Your task to perform on an android device: find which apps use the phone's location Image 0: 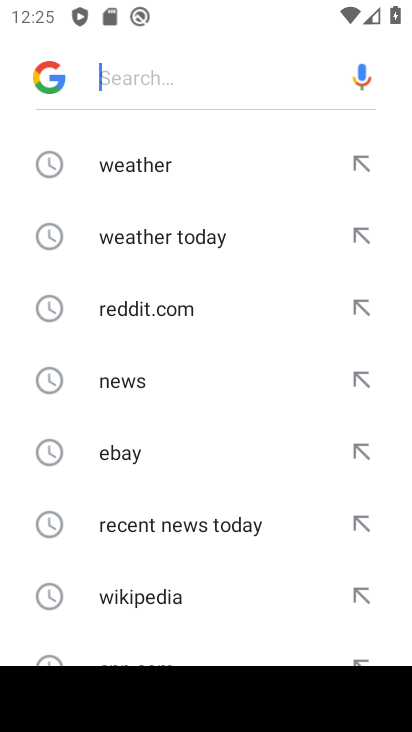
Step 0: press back button
Your task to perform on an android device: find which apps use the phone's location Image 1: 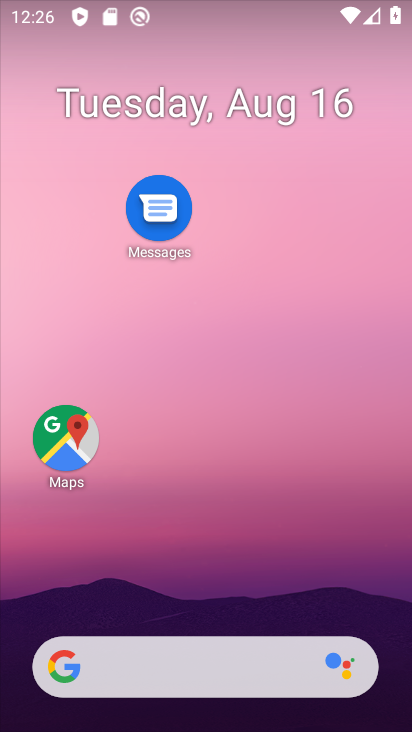
Step 1: drag from (188, 613) to (309, 23)
Your task to perform on an android device: find which apps use the phone's location Image 2: 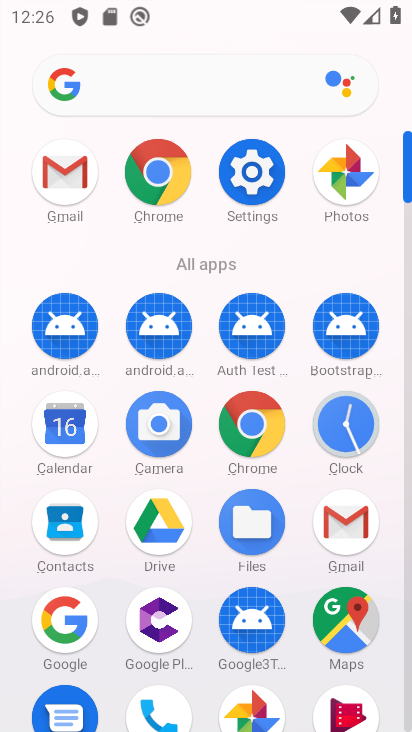
Step 2: click (241, 177)
Your task to perform on an android device: find which apps use the phone's location Image 3: 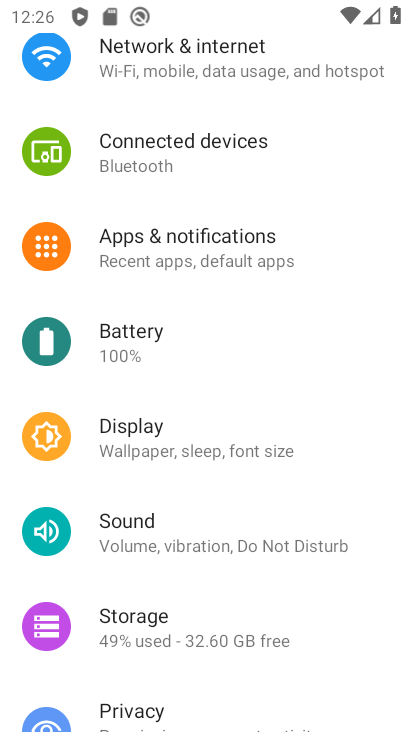
Step 3: drag from (271, 642) to (229, 125)
Your task to perform on an android device: find which apps use the phone's location Image 4: 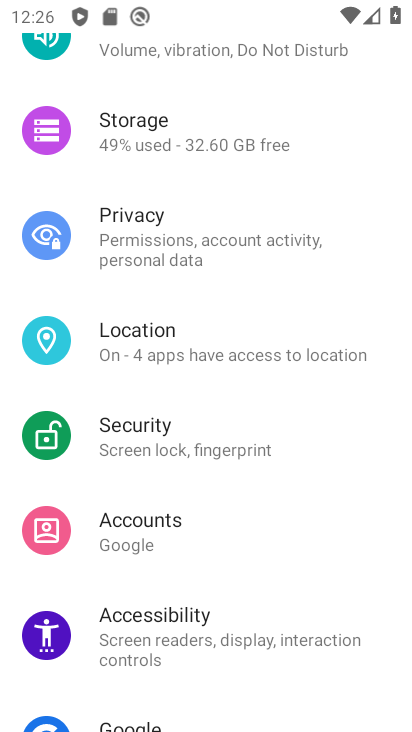
Step 4: click (144, 349)
Your task to perform on an android device: find which apps use the phone's location Image 5: 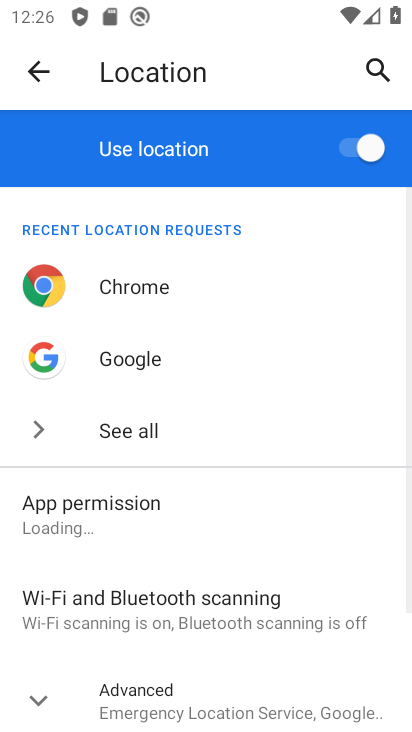
Step 5: click (119, 506)
Your task to perform on an android device: find which apps use the phone's location Image 6: 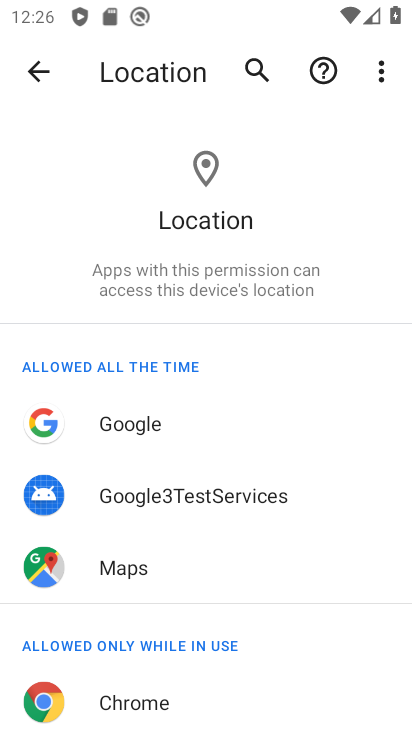
Step 6: task complete